Your task to perform on an android device: Open my contact list Image 0: 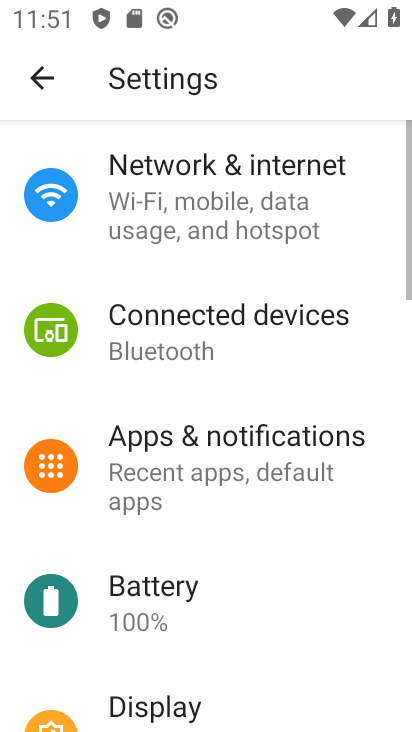
Step 0: press back button
Your task to perform on an android device: Open my contact list Image 1: 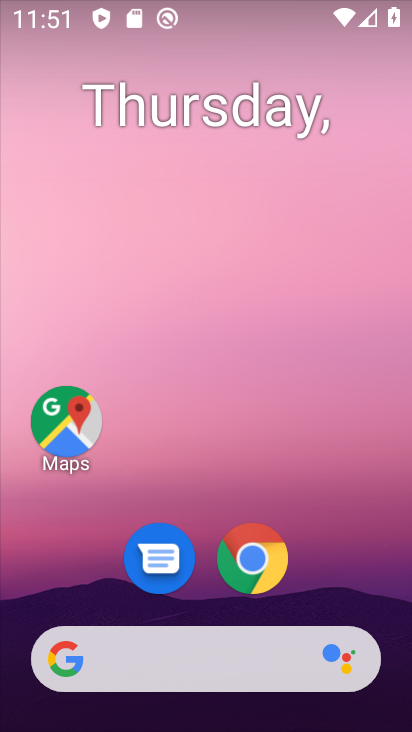
Step 1: drag from (380, 599) to (272, 54)
Your task to perform on an android device: Open my contact list Image 2: 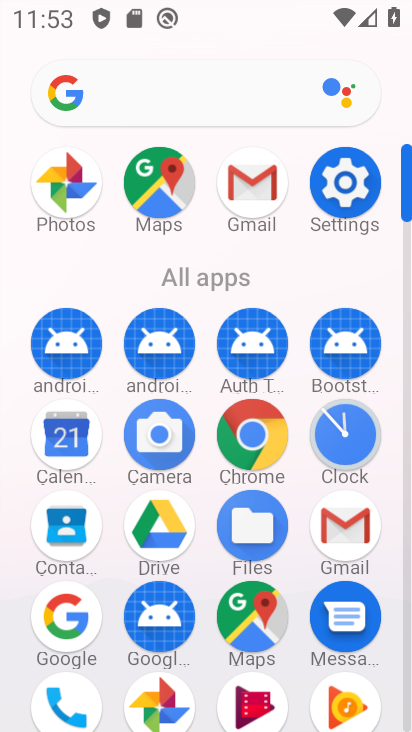
Step 2: click (74, 531)
Your task to perform on an android device: Open my contact list Image 3: 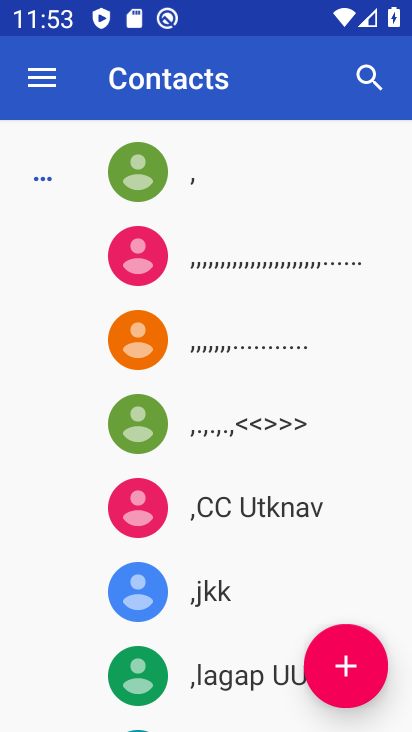
Step 3: task complete